Your task to perform on an android device: Open calendar and show me the fourth week of next month Image 0: 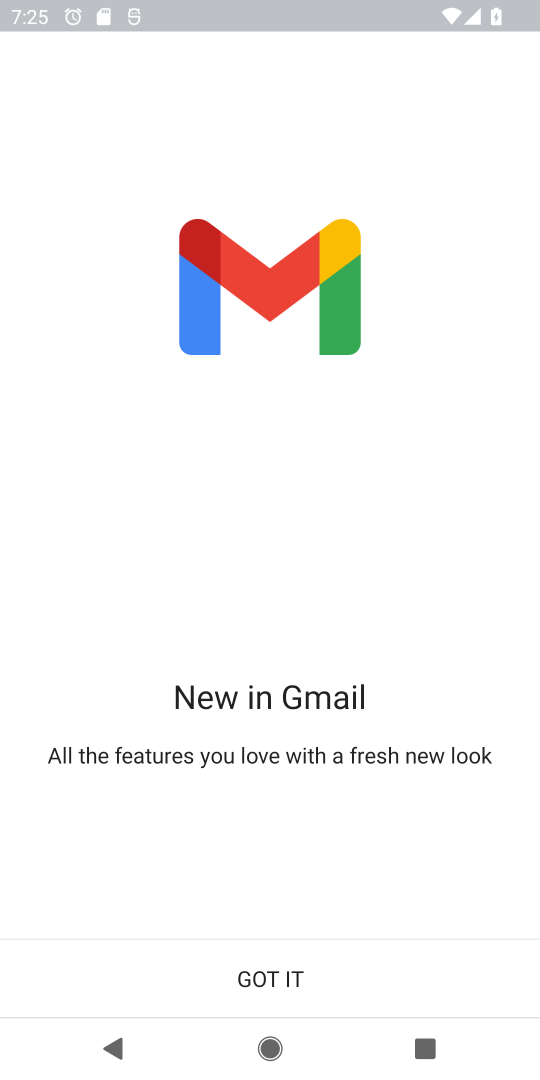
Step 0: press home button
Your task to perform on an android device: Open calendar and show me the fourth week of next month Image 1: 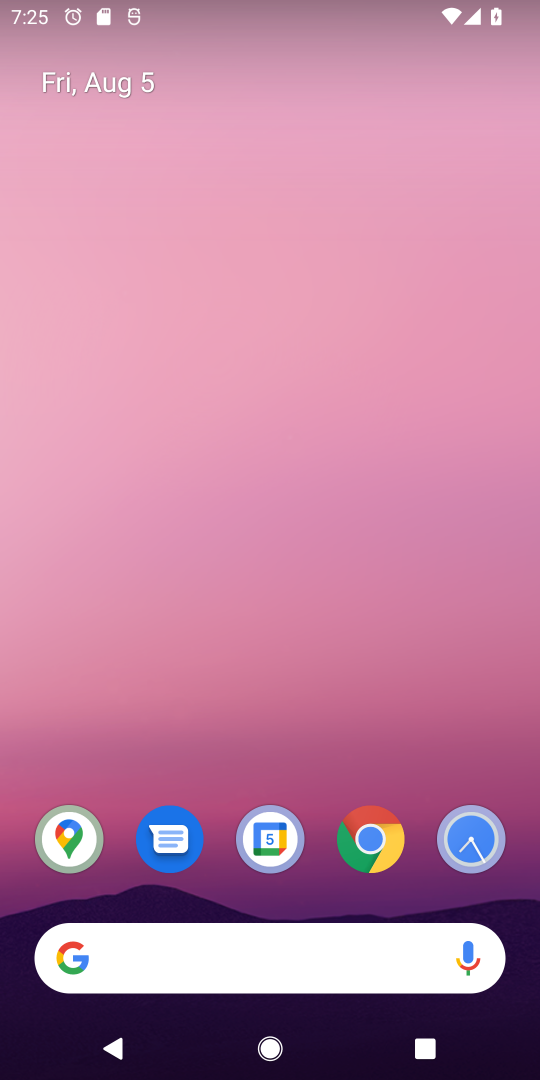
Step 1: click (248, 840)
Your task to perform on an android device: Open calendar and show me the fourth week of next month Image 2: 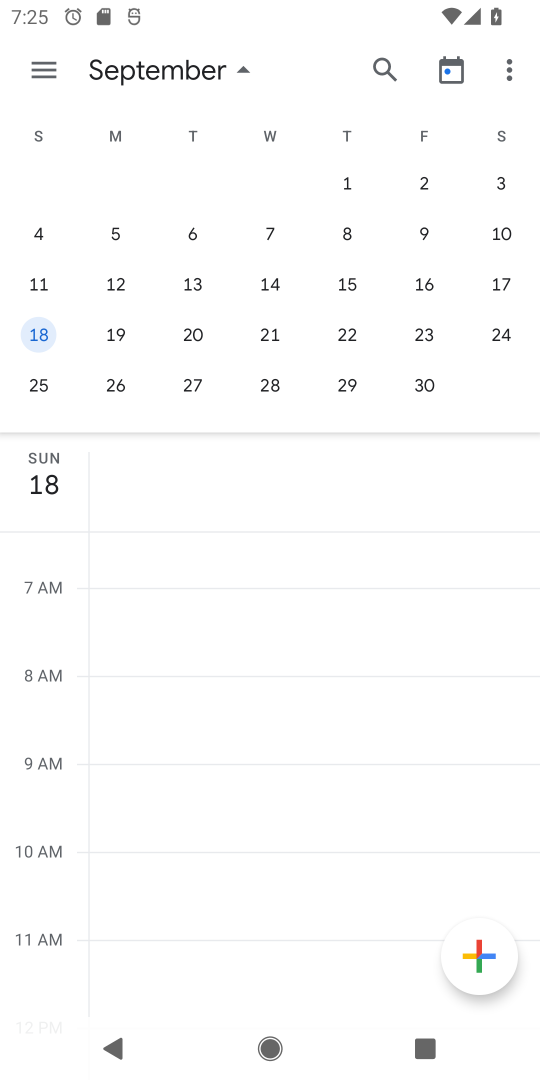
Step 2: task complete